Your task to perform on an android device: turn off picture-in-picture Image 0: 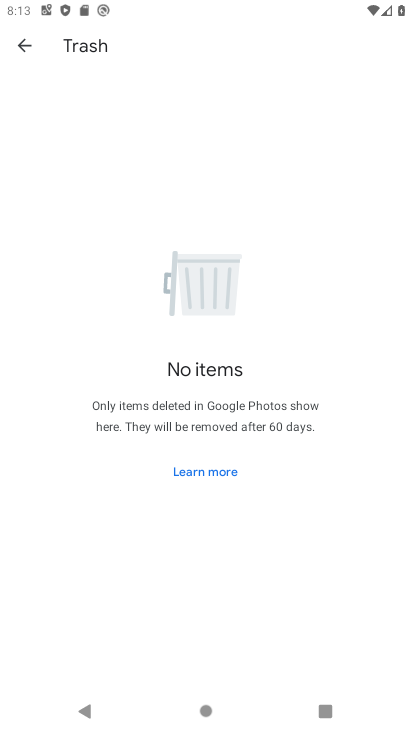
Step 0: press home button
Your task to perform on an android device: turn off picture-in-picture Image 1: 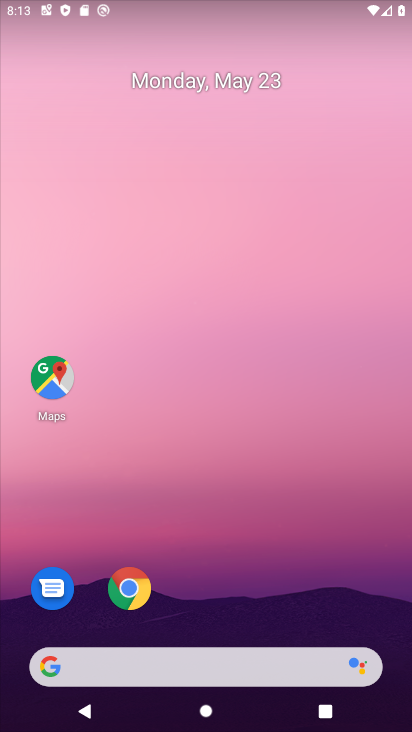
Step 1: click (131, 580)
Your task to perform on an android device: turn off picture-in-picture Image 2: 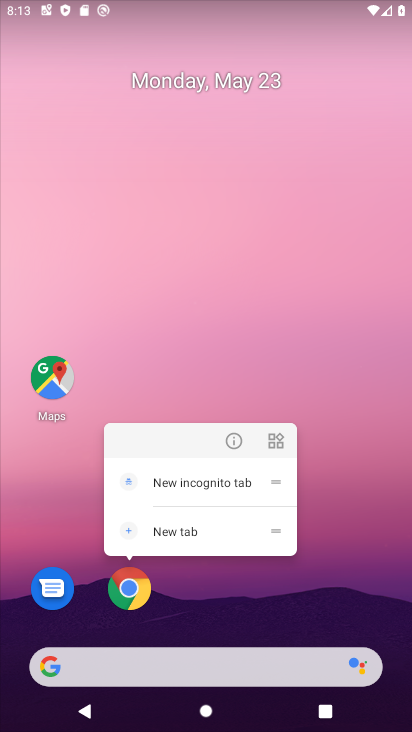
Step 2: click (228, 437)
Your task to perform on an android device: turn off picture-in-picture Image 3: 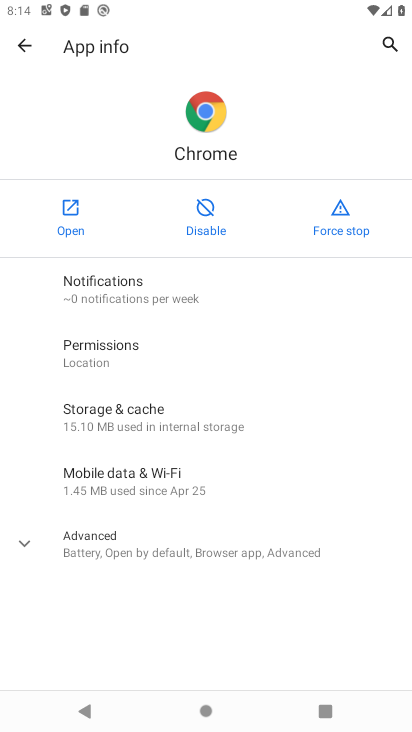
Step 3: click (28, 537)
Your task to perform on an android device: turn off picture-in-picture Image 4: 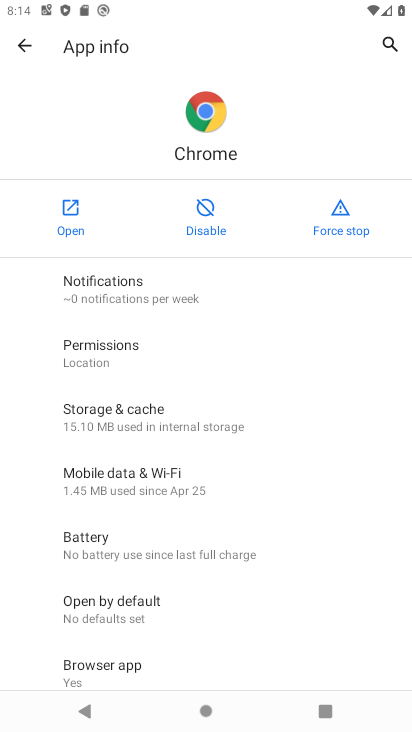
Step 4: drag from (232, 656) to (242, 459)
Your task to perform on an android device: turn off picture-in-picture Image 5: 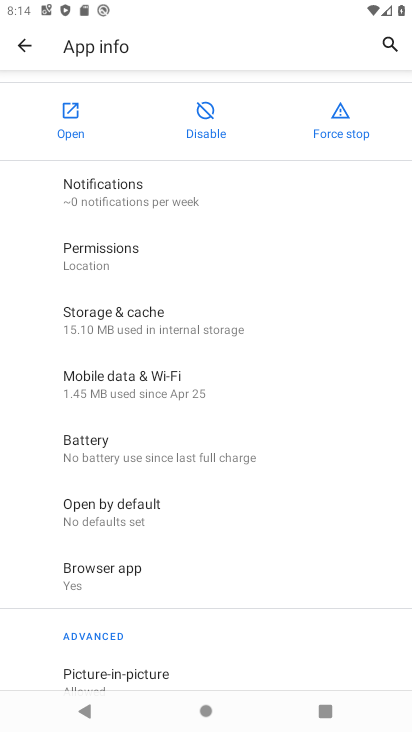
Step 5: drag from (248, 653) to (287, 440)
Your task to perform on an android device: turn off picture-in-picture Image 6: 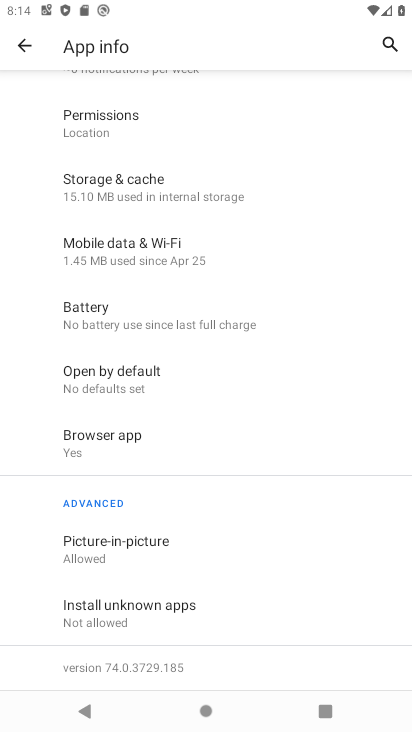
Step 6: click (79, 539)
Your task to perform on an android device: turn off picture-in-picture Image 7: 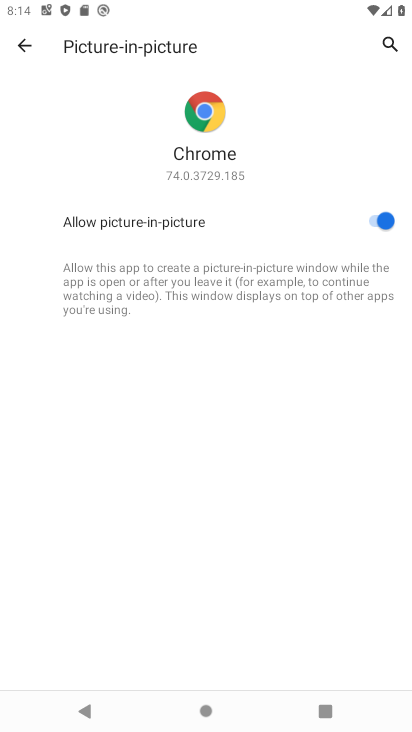
Step 7: click (374, 218)
Your task to perform on an android device: turn off picture-in-picture Image 8: 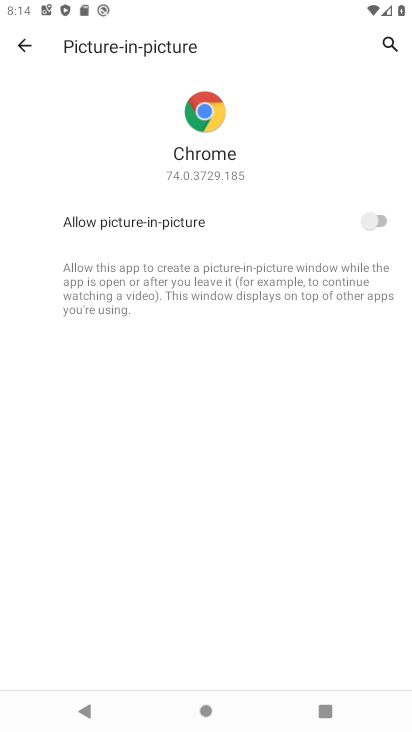
Step 8: task complete